Your task to perform on an android device: check storage Image 0: 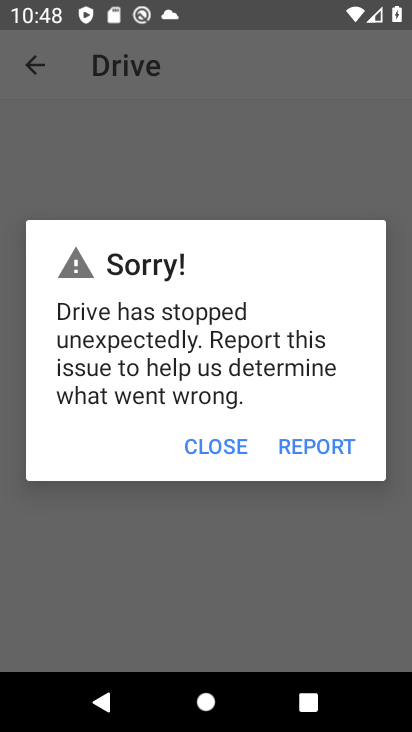
Step 0: press home button
Your task to perform on an android device: check storage Image 1: 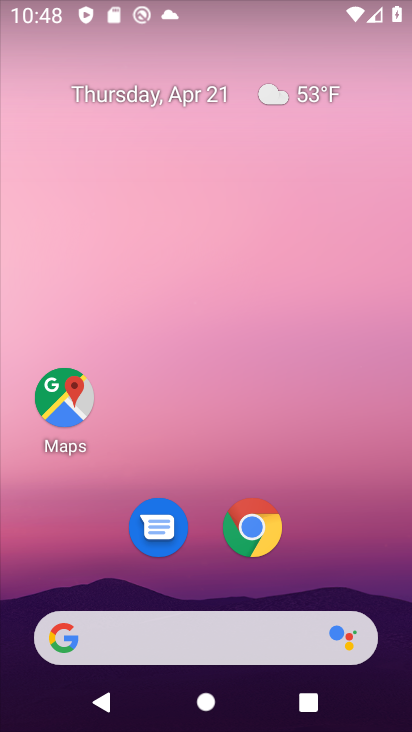
Step 1: drag from (335, 527) to (351, 140)
Your task to perform on an android device: check storage Image 2: 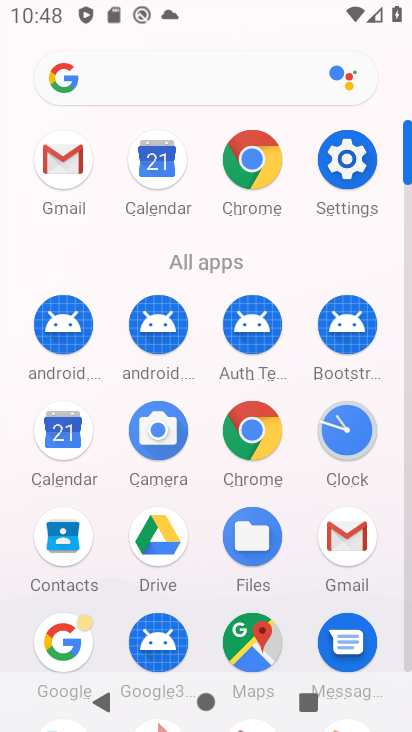
Step 2: click (350, 160)
Your task to perform on an android device: check storage Image 3: 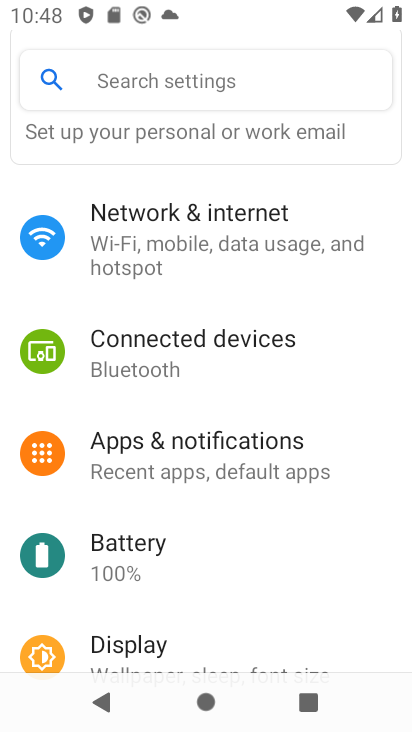
Step 3: drag from (360, 563) to (335, 356)
Your task to perform on an android device: check storage Image 4: 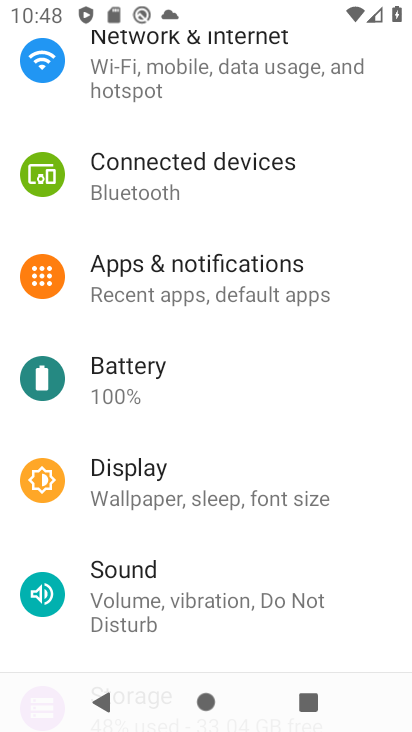
Step 4: drag from (363, 597) to (354, 365)
Your task to perform on an android device: check storage Image 5: 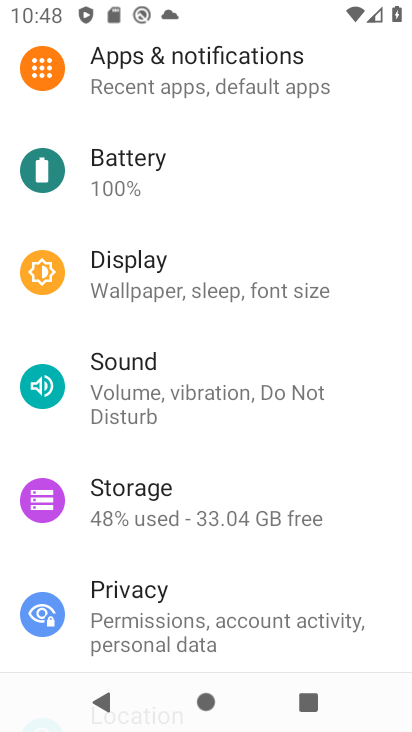
Step 5: drag from (376, 567) to (369, 352)
Your task to perform on an android device: check storage Image 6: 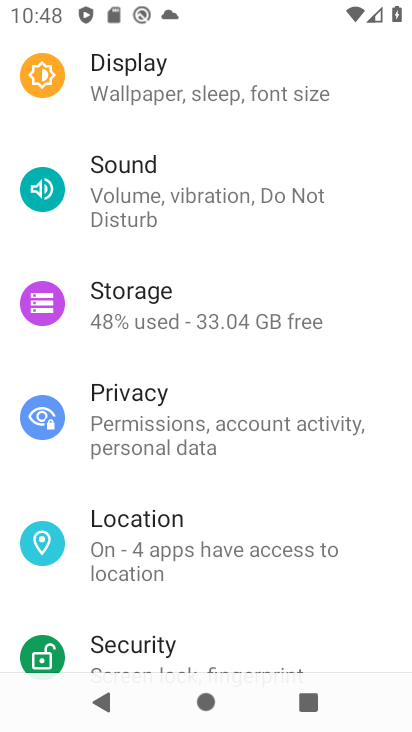
Step 6: drag from (372, 598) to (370, 381)
Your task to perform on an android device: check storage Image 7: 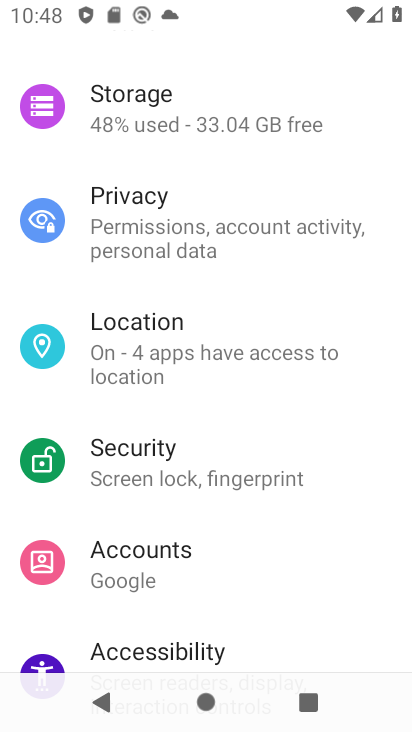
Step 7: drag from (374, 508) to (373, 331)
Your task to perform on an android device: check storage Image 8: 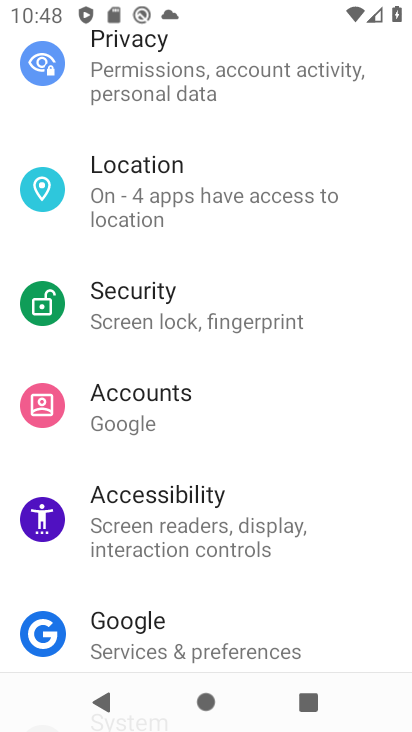
Step 8: drag from (364, 608) to (347, 317)
Your task to perform on an android device: check storage Image 9: 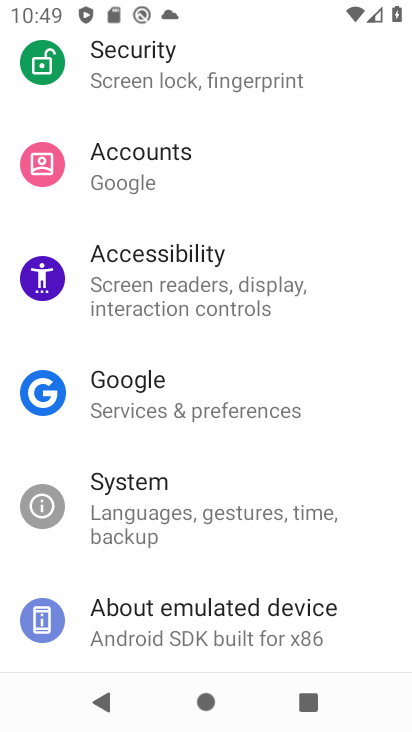
Step 9: drag from (359, 272) to (352, 444)
Your task to perform on an android device: check storage Image 10: 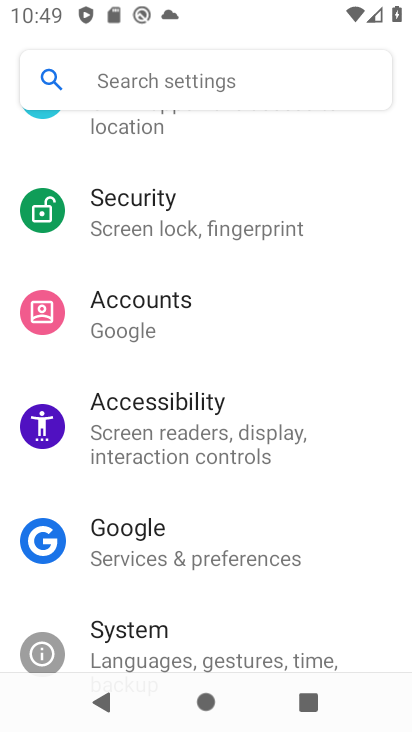
Step 10: drag from (353, 252) to (352, 507)
Your task to perform on an android device: check storage Image 11: 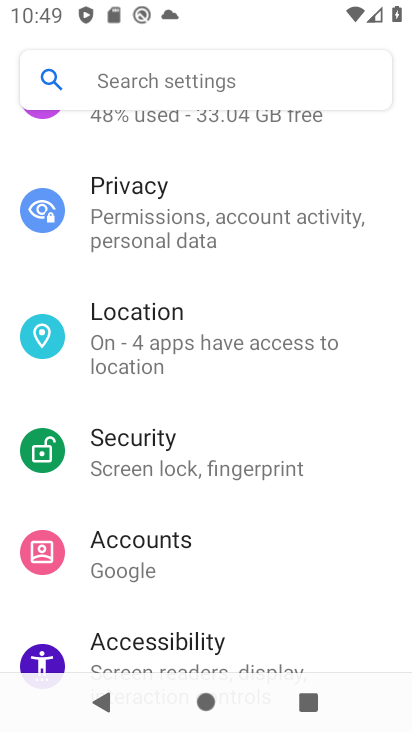
Step 11: drag from (356, 276) to (355, 497)
Your task to perform on an android device: check storage Image 12: 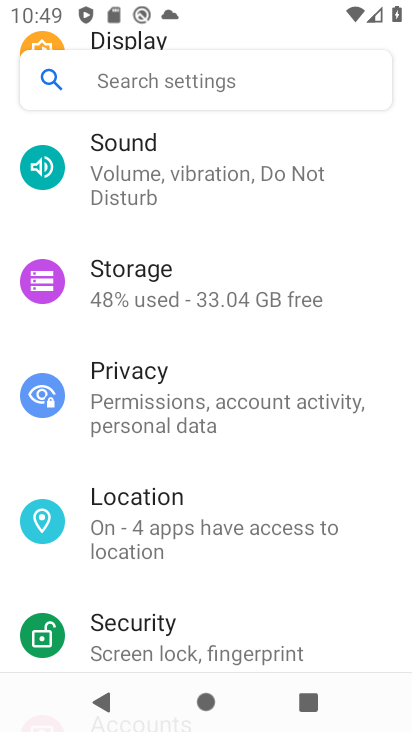
Step 12: drag from (368, 242) to (375, 485)
Your task to perform on an android device: check storage Image 13: 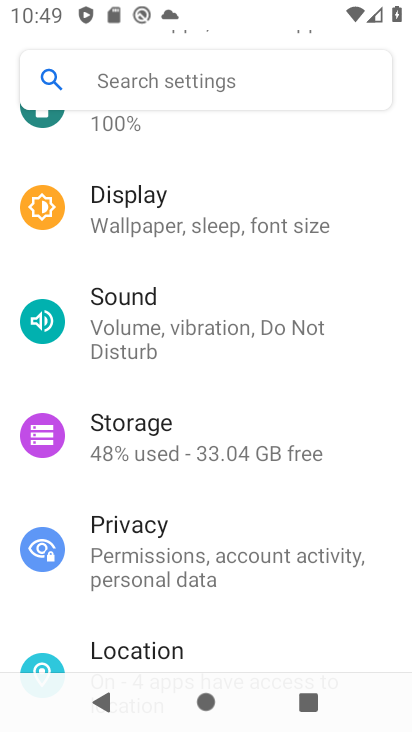
Step 13: click (324, 454)
Your task to perform on an android device: check storage Image 14: 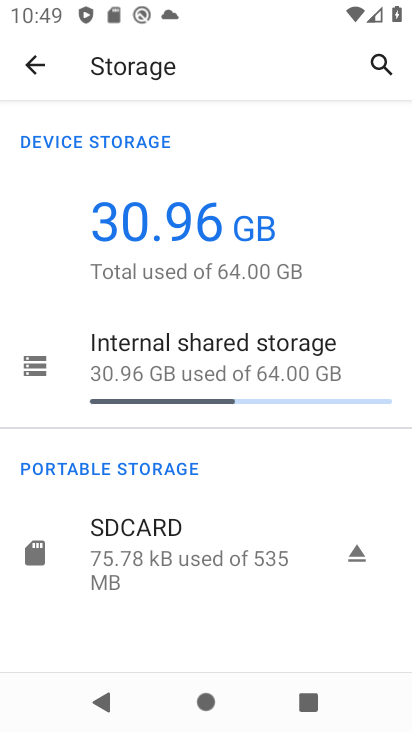
Step 14: task complete